Your task to perform on an android device: star an email in the gmail app Image 0: 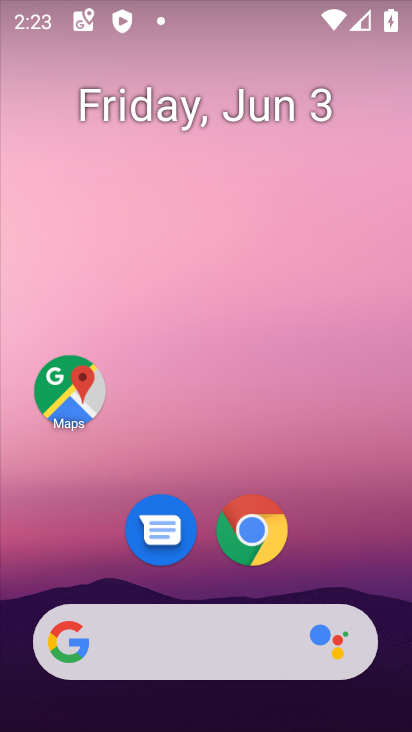
Step 0: drag from (340, 523) to (220, 114)
Your task to perform on an android device: star an email in the gmail app Image 1: 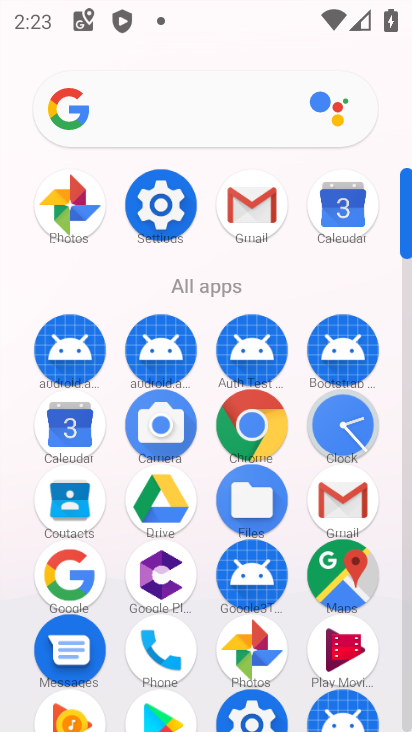
Step 1: click (246, 197)
Your task to perform on an android device: star an email in the gmail app Image 2: 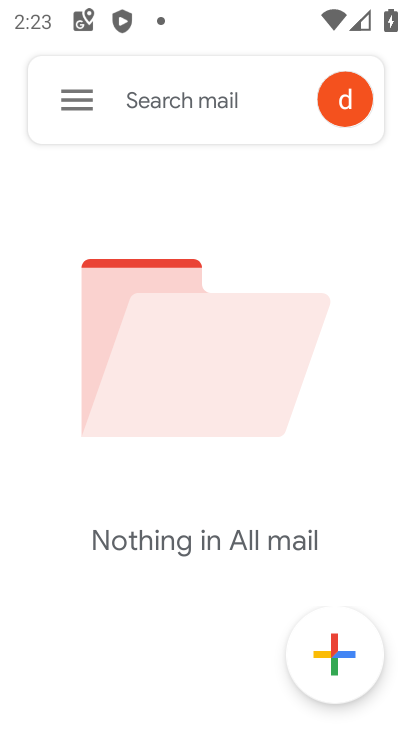
Step 2: click (78, 99)
Your task to perform on an android device: star an email in the gmail app Image 3: 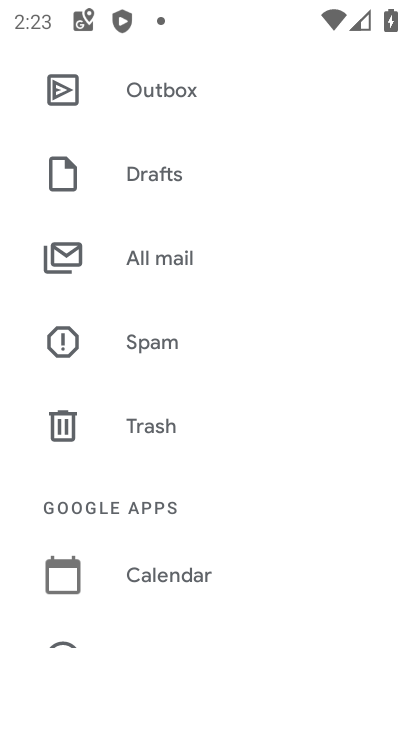
Step 3: click (163, 254)
Your task to perform on an android device: star an email in the gmail app Image 4: 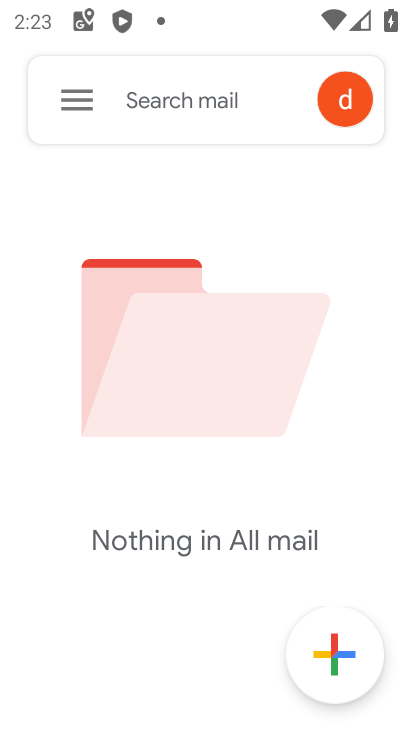
Step 4: task complete